Your task to perform on an android device: add a contact in the contacts app Image 0: 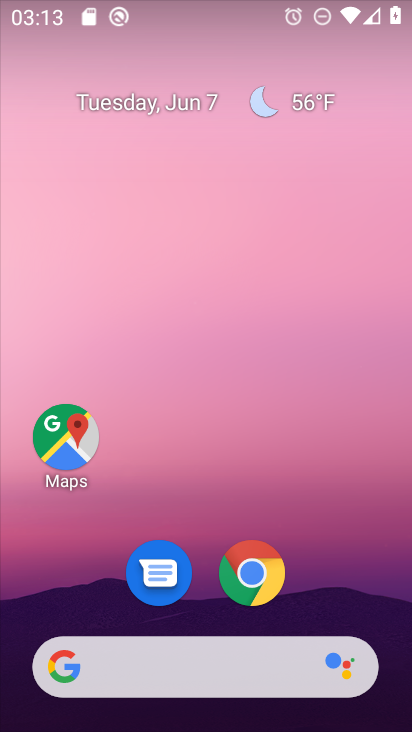
Step 0: drag from (335, 531) to (310, 58)
Your task to perform on an android device: add a contact in the contacts app Image 1: 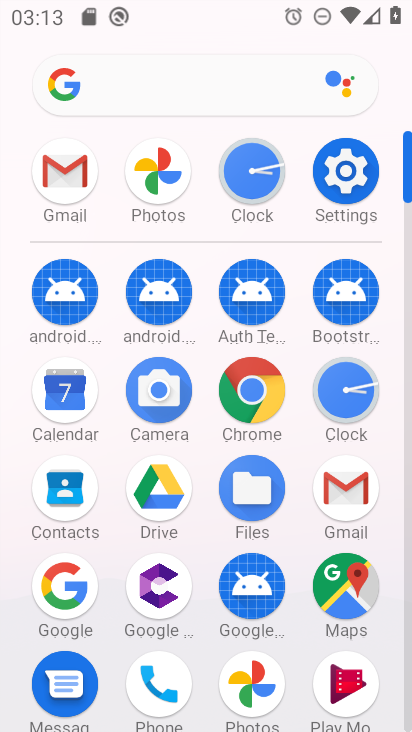
Step 1: click (48, 493)
Your task to perform on an android device: add a contact in the contacts app Image 2: 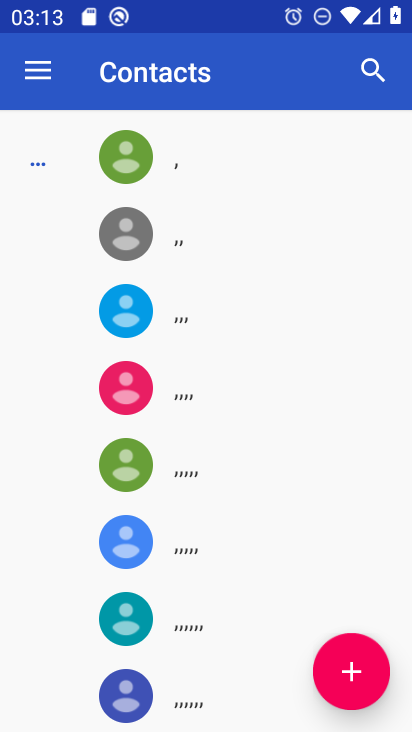
Step 2: click (359, 666)
Your task to perform on an android device: add a contact in the contacts app Image 3: 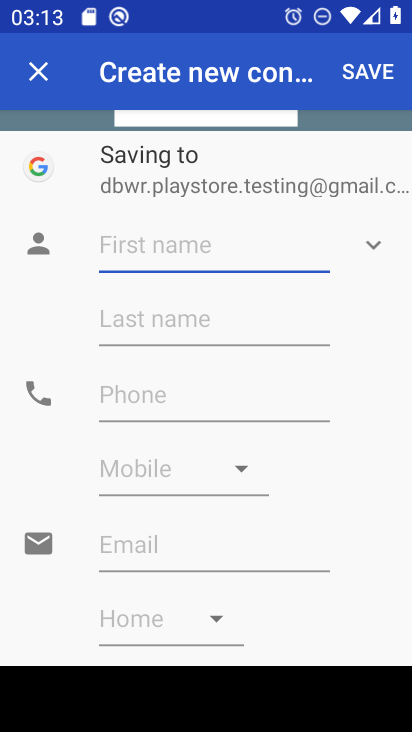
Step 3: type "dfd"
Your task to perform on an android device: add a contact in the contacts app Image 4: 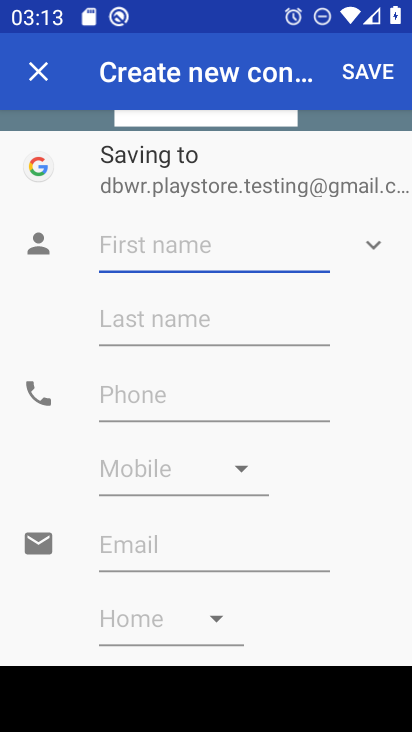
Step 4: click (214, 325)
Your task to perform on an android device: add a contact in the contacts app Image 5: 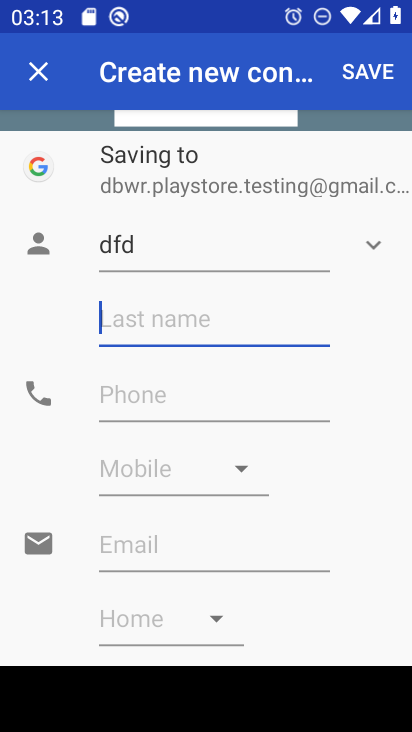
Step 5: click (136, 418)
Your task to perform on an android device: add a contact in the contacts app Image 6: 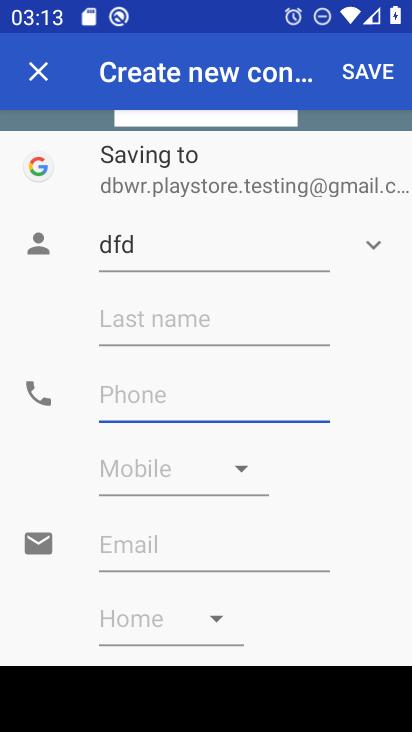
Step 6: type "253"
Your task to perform on an android device: add a contact in the contacts app Image 7: 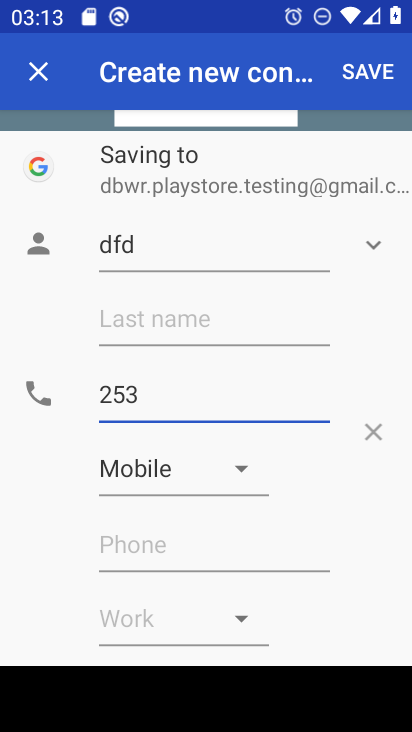
Step 7: click (354, 77)
Your task to perform on an android device: add a contact in the contacts app Image 8: 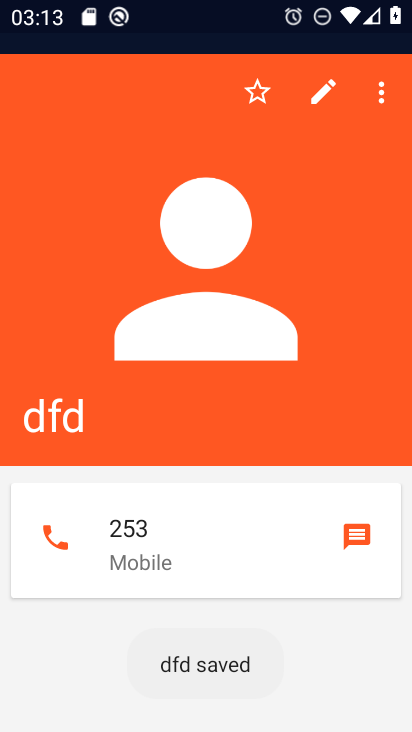
Step 8: task complete